Your task to perform on an android device: What's on my calendar today? Image 0: 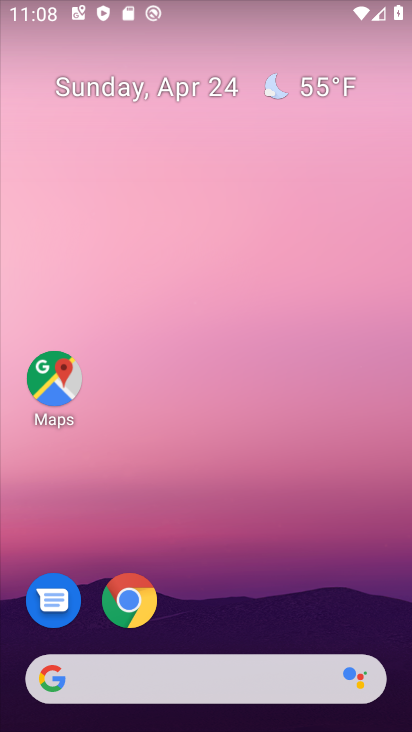
Step 0: click (90, 83)
Your task to perform on an android device: What's on my calendar today? Image 1: 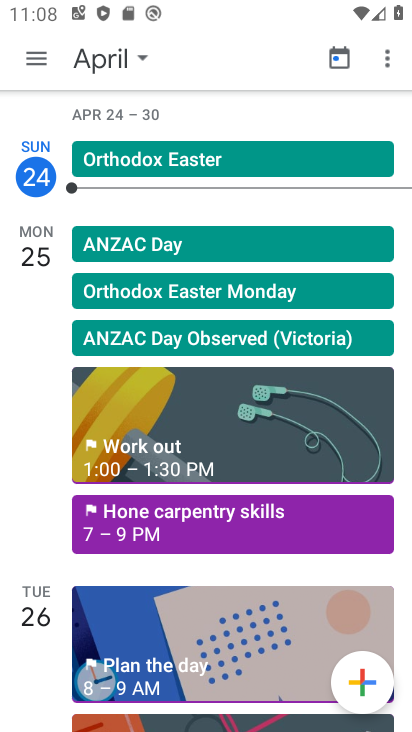
Step 1: click (121, 43)
Your task to perform on an android device: What's on my calendar today? Image 2: 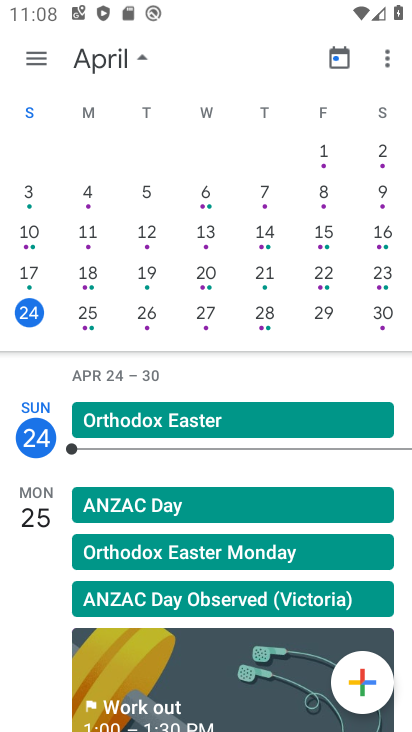
Step 2: task complete